Your task to perform on an android device: Open Wikipedia Image 0: 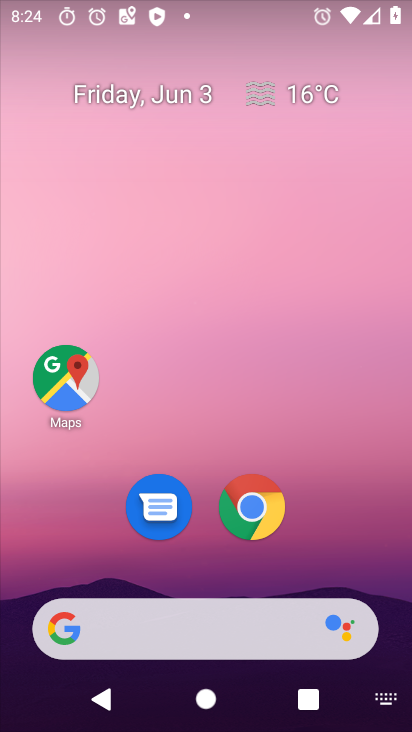
Step 0: click (267, 508)
Your task to perform on an android device: Open Wikipedia Image 1: 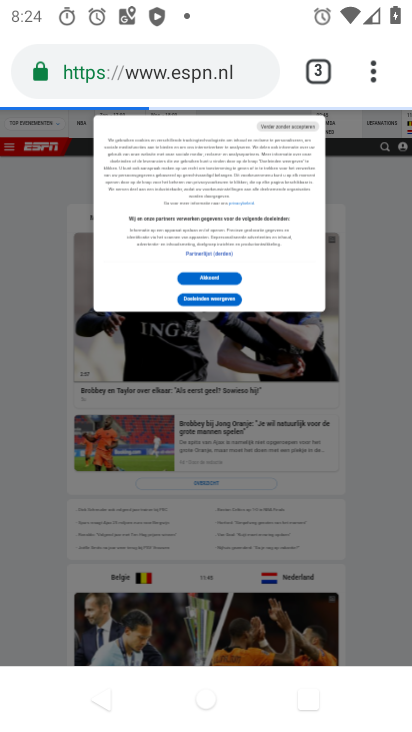
Step 1: click (324, 76)
Your task to perform on an android device: Open Wikipedia Image 2: 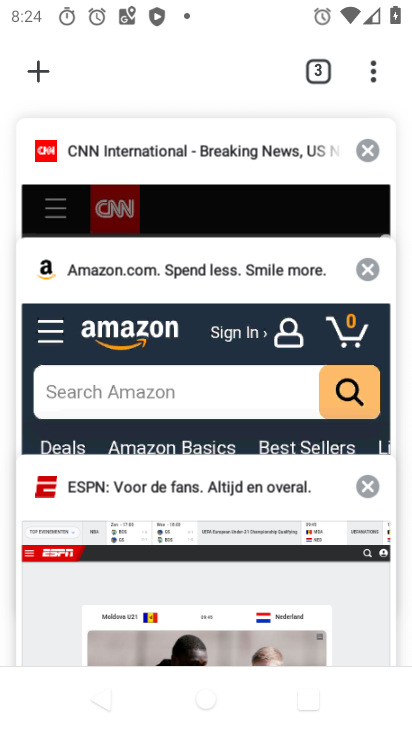
Step 2: click (46, 69)
Your task to perform on an android device: Open Wikipedia Image 3: 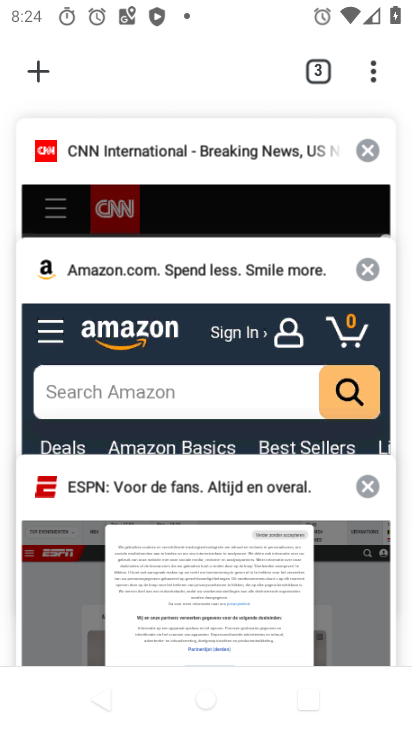
Step 3: click (38, 68)
Your task to perform on an android device: Open Wikipedia Image 4: 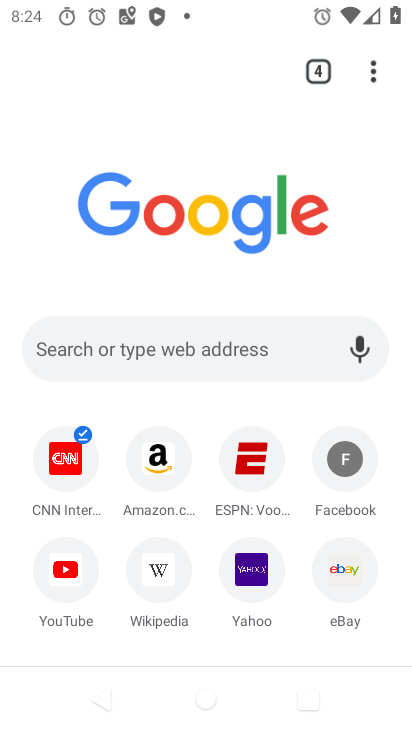
Step 4: click (165, 584)
Your task to perform on an android device: Open Wikipedia Image 5: 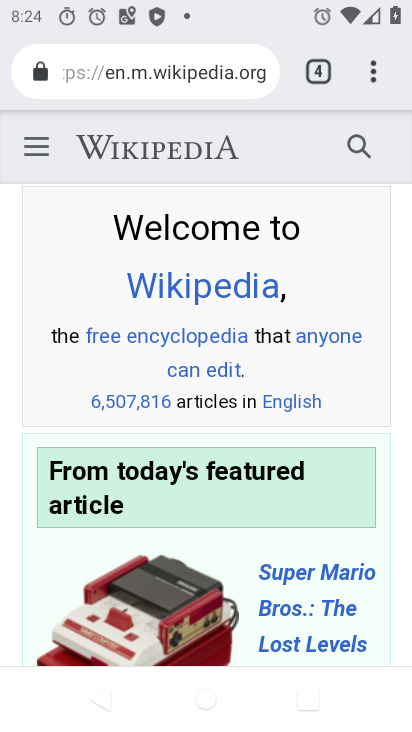
Step 5: task complete